Your task to perform on an android device: check google app version Image 0: 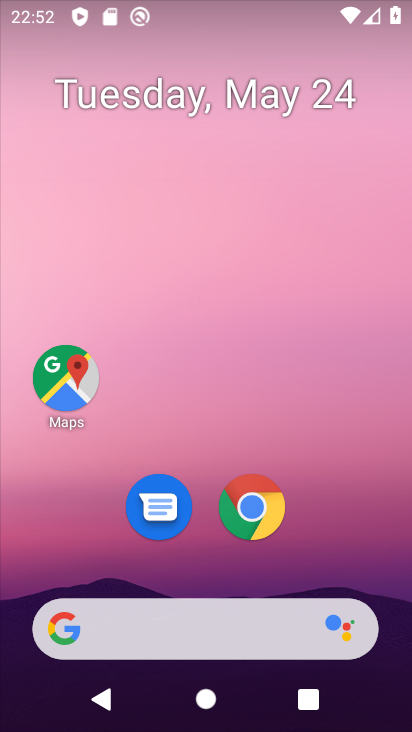
Step 0: drag from (269, 620) to (238, 32)
Your task to perform on an android device: check google app version Image 1: 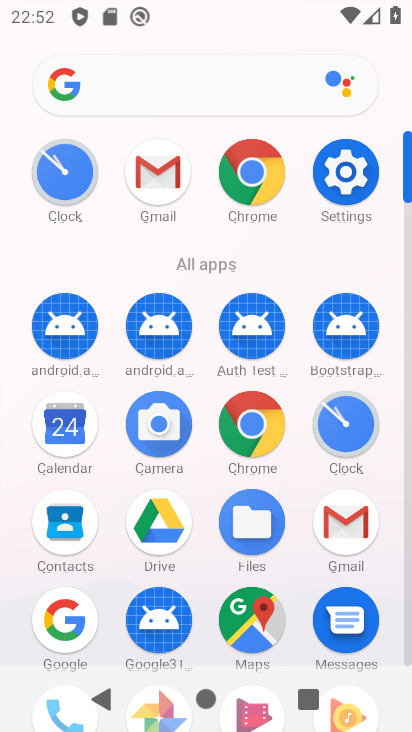
Step 1: drag from (349, 595) to (365, 139)
Your task to perform on an android device: check google app version Image 2: 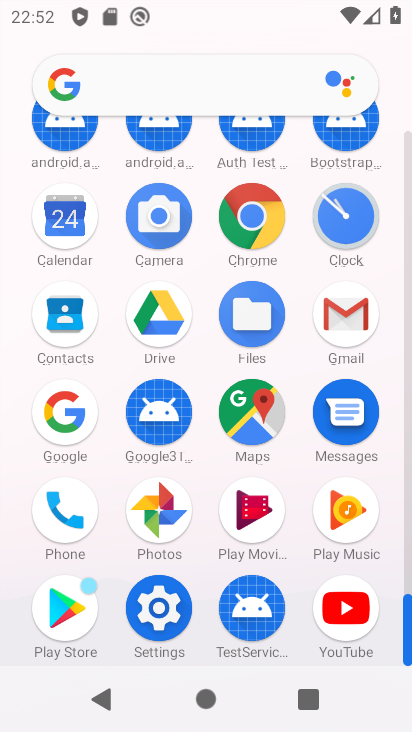
Step 2: click (247, 216)
Your task to perform on an android device: check google app version Image 3: 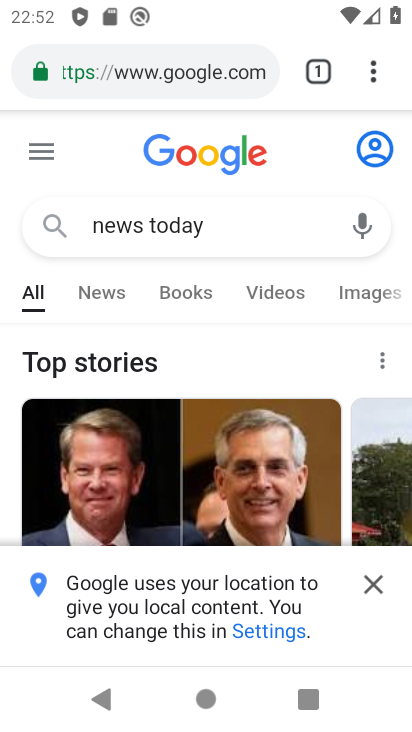
Step 3: click (360, 68)
Your task to perform on an android device: check google app version Image 4: 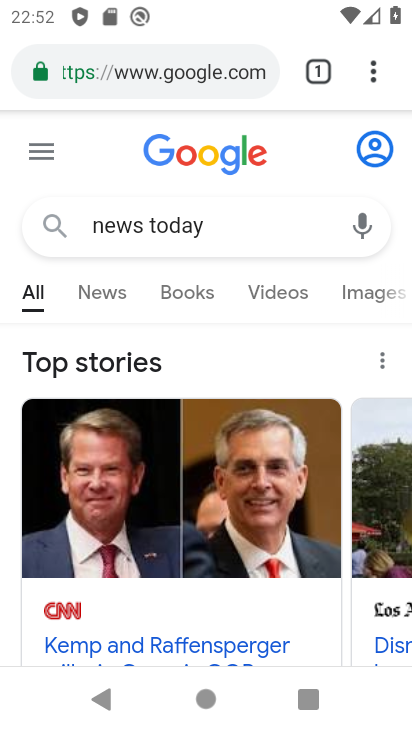
Step 4: drag from (372, 63) to (326, 491)
Your task to perform on an android device: check google app version Image 5: 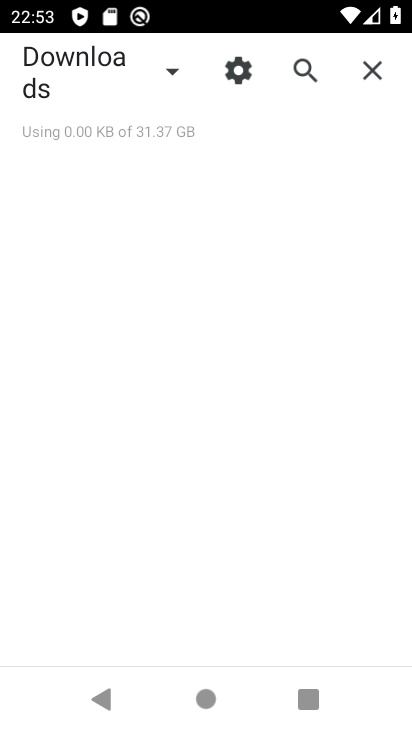
Step 5: press back button
Your task to perform on an android device: check google app version Image 6: 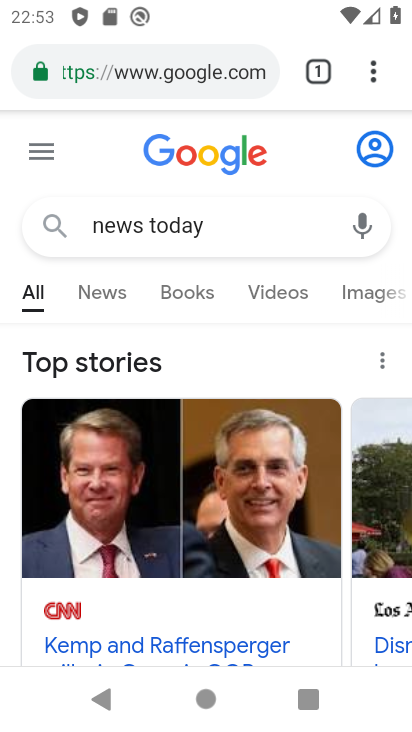
Step 6: click (366, 67)
Your task to perform on an android device: check google app version Image 7: 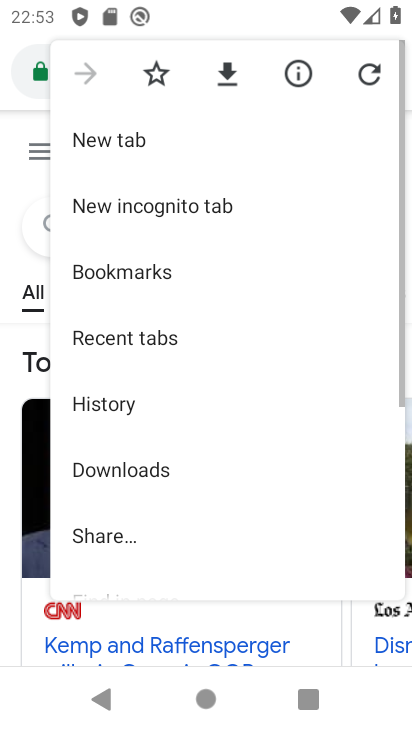
Step 7: drag from (232, 566) to (297, 190)
Your task to perform on an android device: check google app version Image 8: 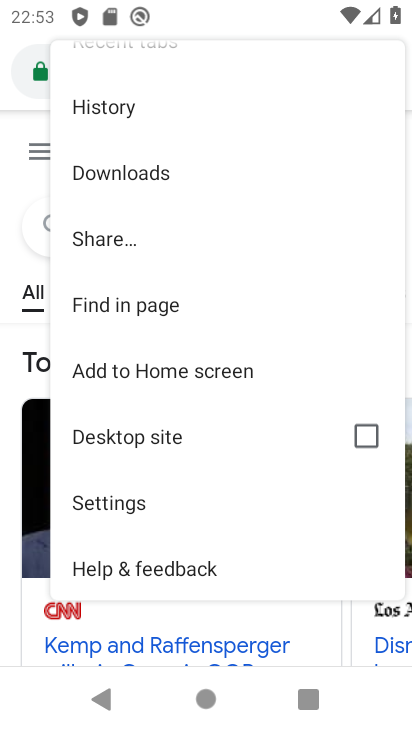
Step 8: click (176, 502)
Your task to perform on an android device: check google app version Image 9: 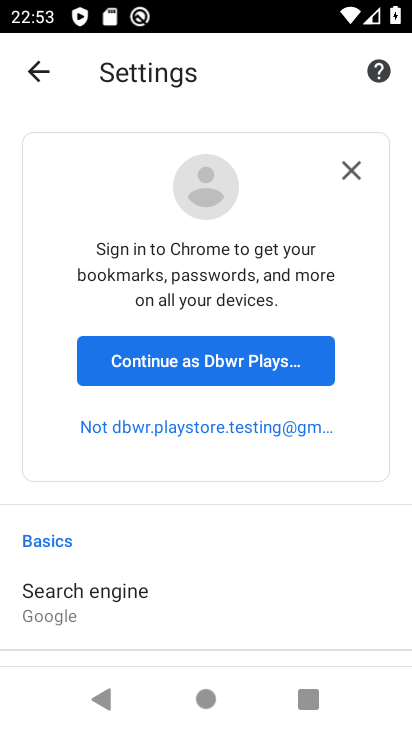
Step 9: task complete